Your task to perform on an android device: clear all cookies in the chrome app Image 0: 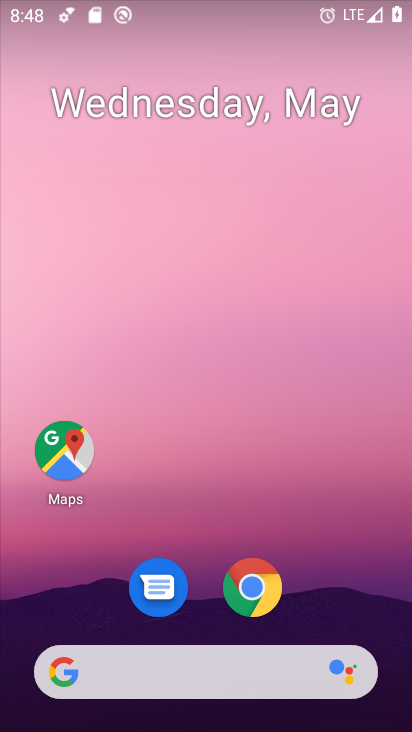
Step 0: click (257, 579)
Your task to perform on an android device: clear all cookies in the chrome app Image 1: 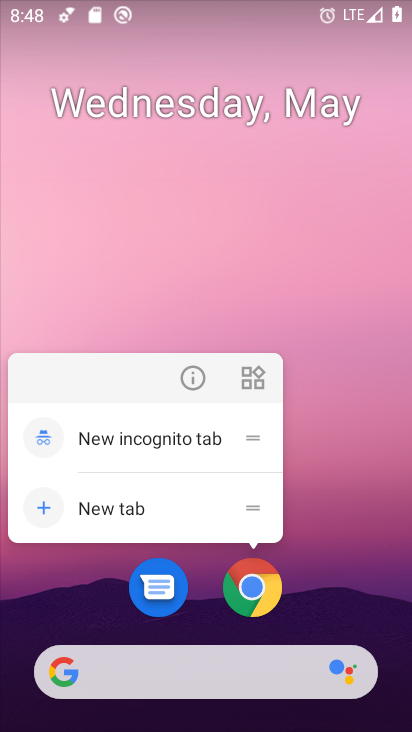
Step 1: click (254, 578)
Your task to perform on an android device: clear all cookies in the chrome app Image 2: 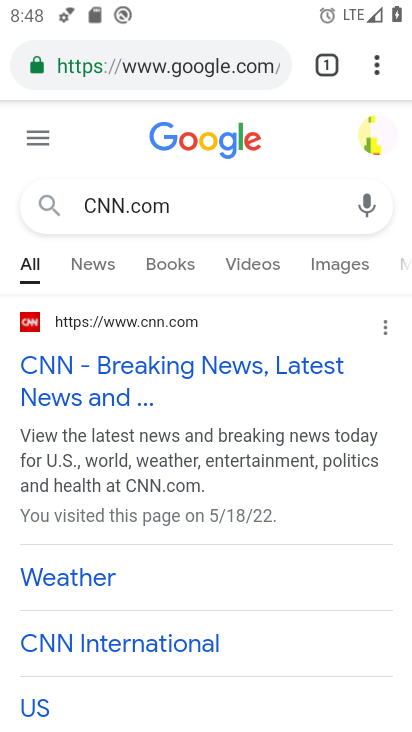
Step 2: click (383, 59)
Your task to perform on an android device: clear all cookies in the chrome app Image 3: 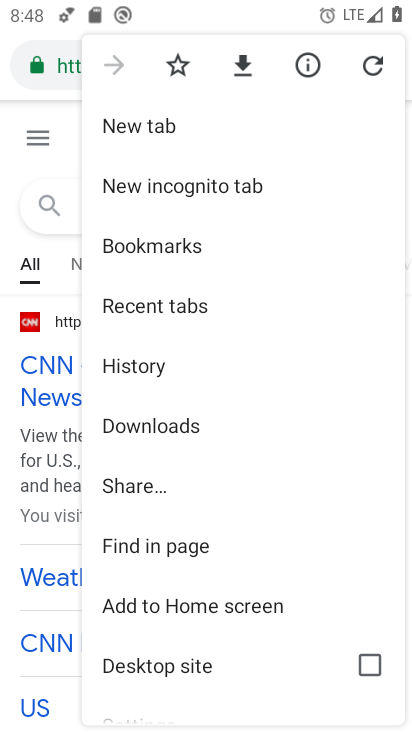
Step 3: click (137, 368)
Your task to perform on an android device: clear all cookies in the chrome app Image 4: 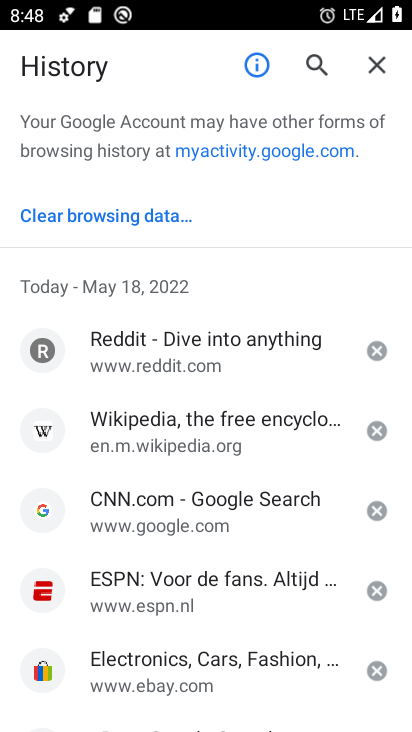
Step 4: click (100, 217)
Your task to perform on an android device: clear all cookies in the chrome app Image 5: 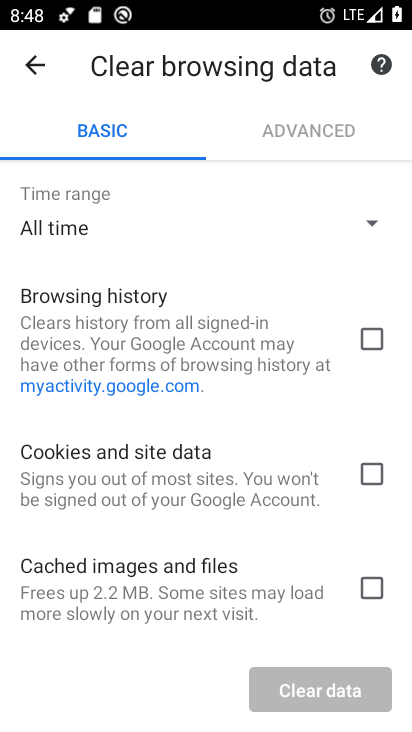
Step 5: click (362, 469)
Your task to perform on an android device: clear all cookies in the chrome app Image 6: 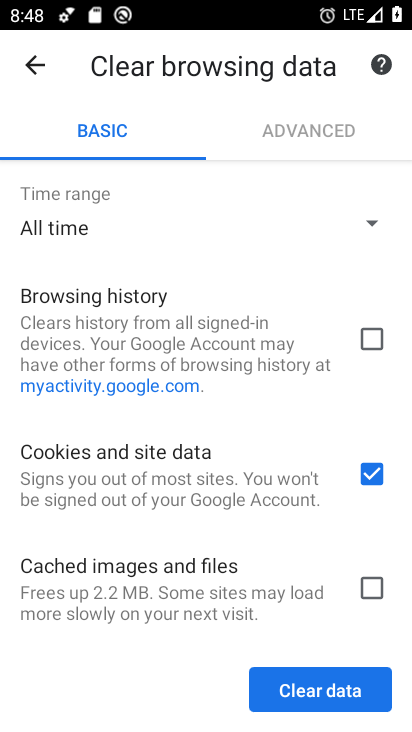
Step 6: click (350, 696)
Your task to perform on an android device: clear all cookies in the chrome app Image 7: 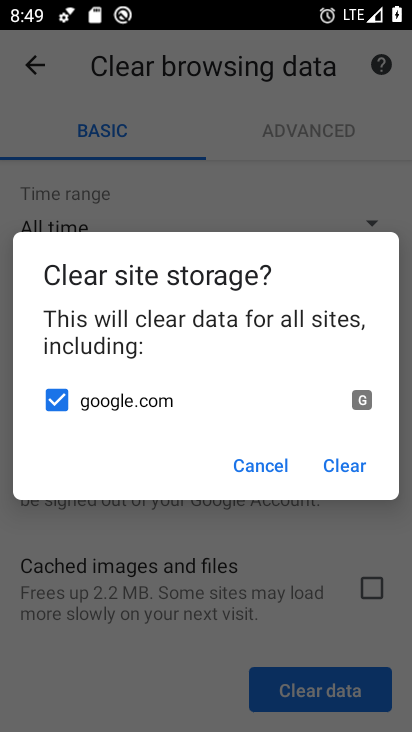
Step 7: click (356, 467)
Your task to perform on an android device: clear all cookies in the chrome app Image 8: 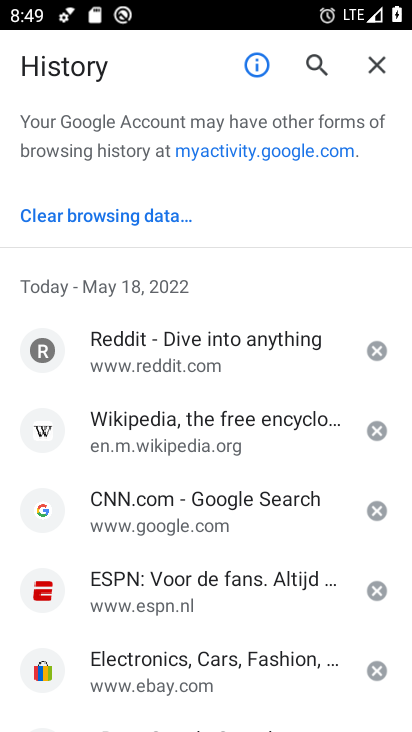
Step 8: task complete